Your task to perform on an android device: Go to settings Image 0: 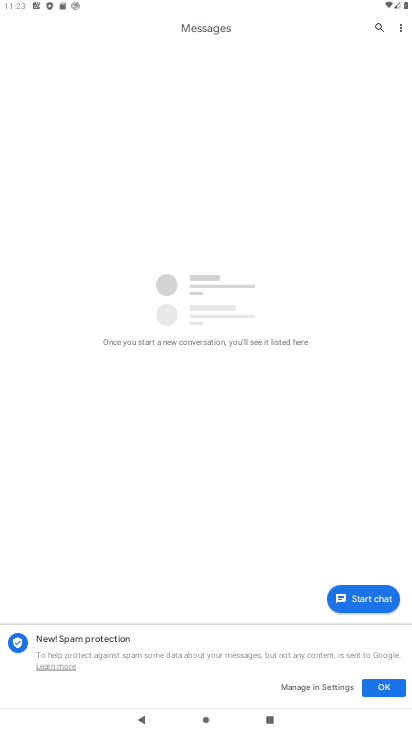
Step 0: press home button
Your task to perform on an android device: Go to settings Image 1: 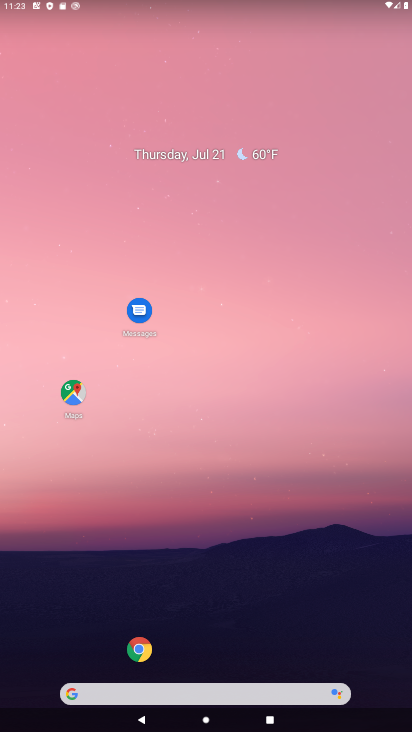
Step 1: drag from (37, 666) to (282, 162)
Your task to perform on an android device: Go to settings Image 2: 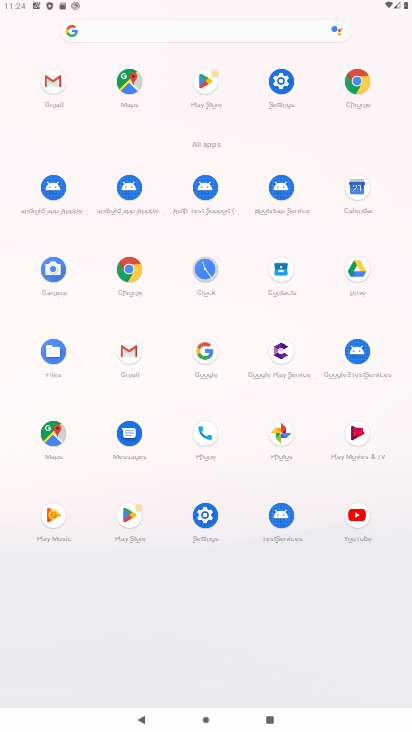
Step 2: click (199, 508)
Your task to perform on an android device: Go to settings Image 3: 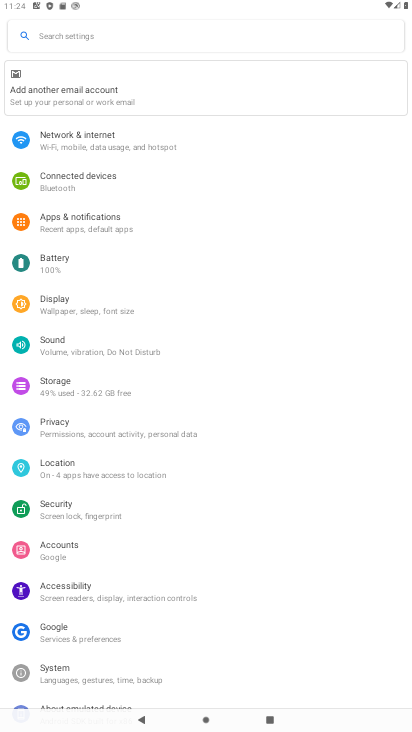
Step 3: task complete